Your task to perform on an android device: open a bookmark in the chrome app Image 0: 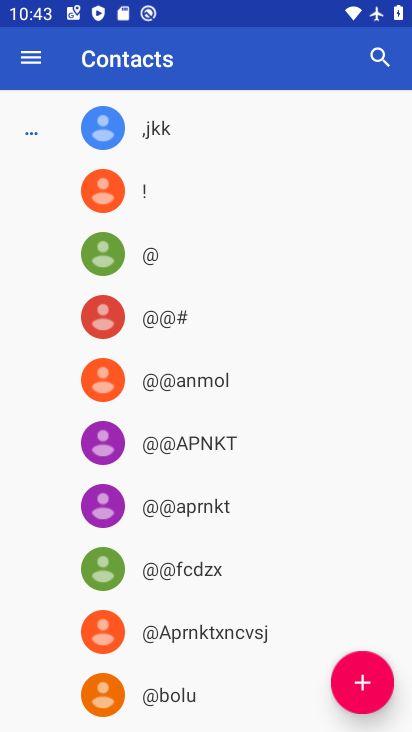
Step 0: press home button
Your task to perform on an android device: open a bookmark in the chrome app Image 1: 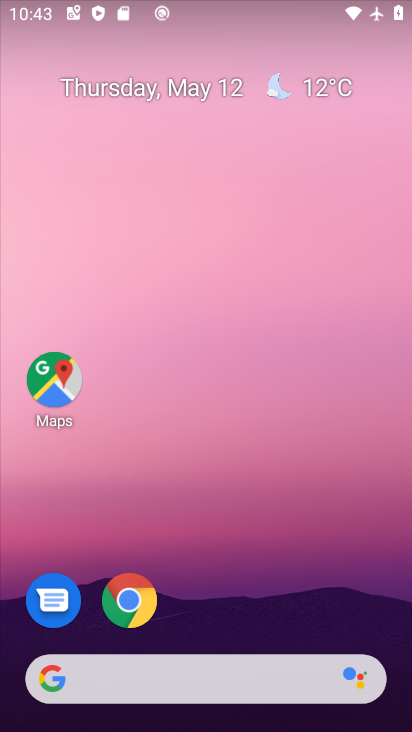
Step 1: click (125, 605)
Your task to perform on an android device: open a bookmark in the chrome app Image 2: 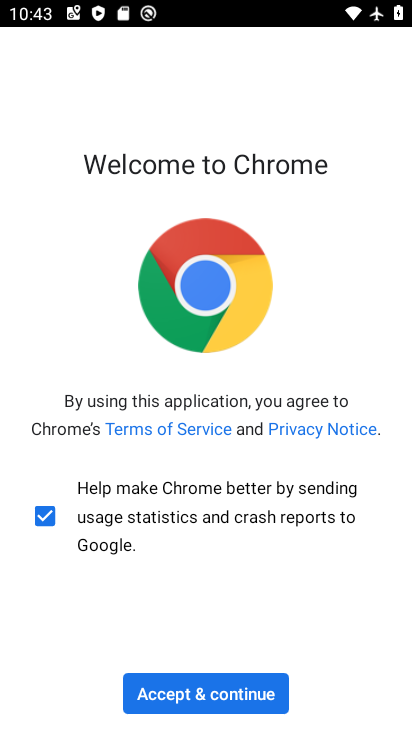
Step 2: click (248, 703)
Your task to perform on an android device: open a bookmark in the chrome app Image 3: 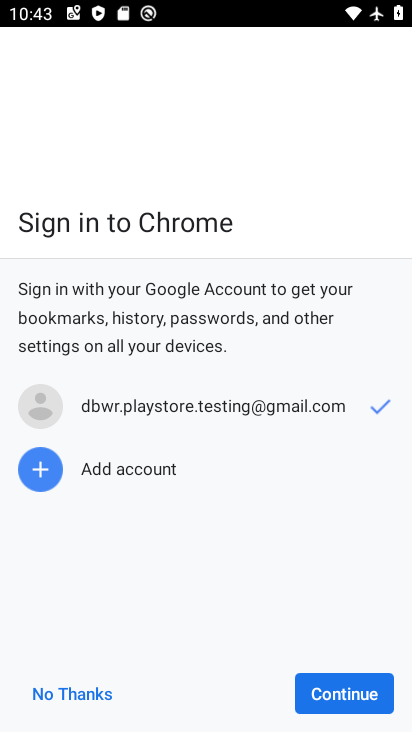
Step 3: click (331, 686)
Your task to perform on an android device: open a bookmark in the chrome app Image 4: 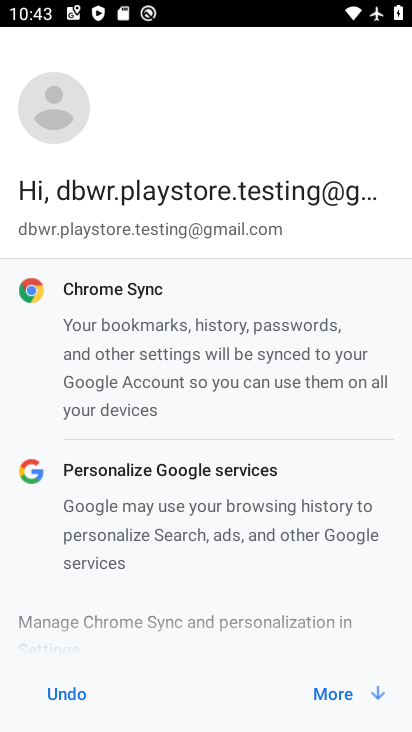
Step 4: click (331, 686)
Your task to perform on an android device: open a bookmark in the chrome app Image 5: 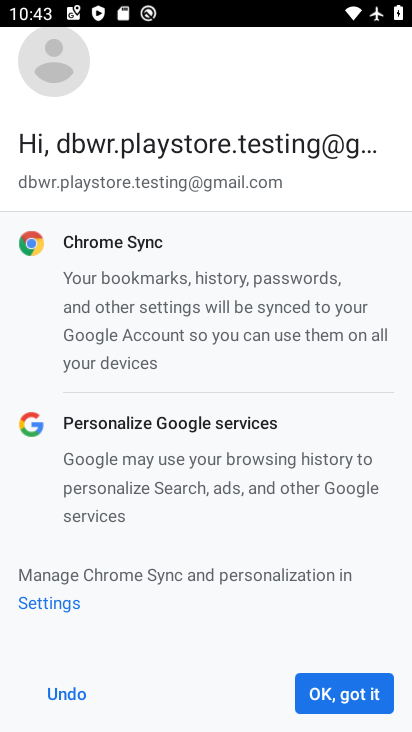
Step 5: click (331, 686)
Your task to perform on an android device: open a bookmark in the chrome app Image 6: 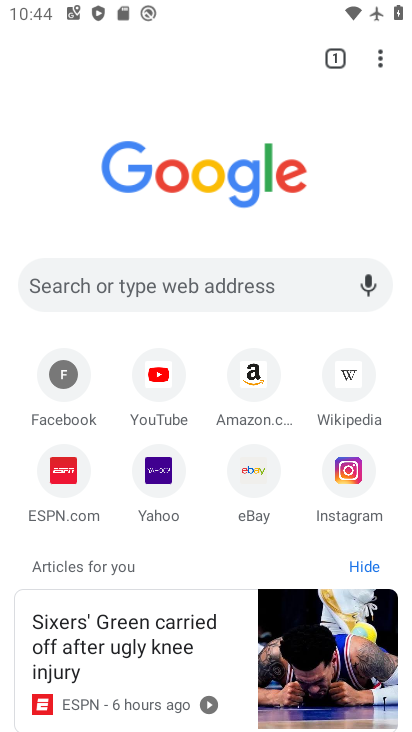
Step 6: click (386, 50)
Your task to perform on an android device: open a bookmark in the chrome app Image 7: 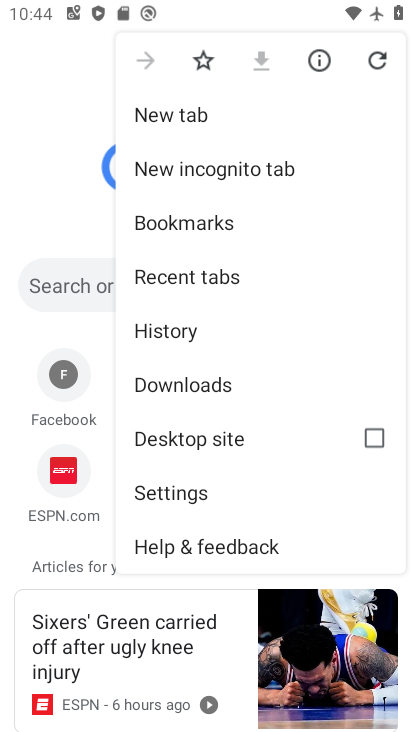
Step 7: click (199, 229)
Your task to perform on an android device: open a bookmark in the chrome app Image 8: 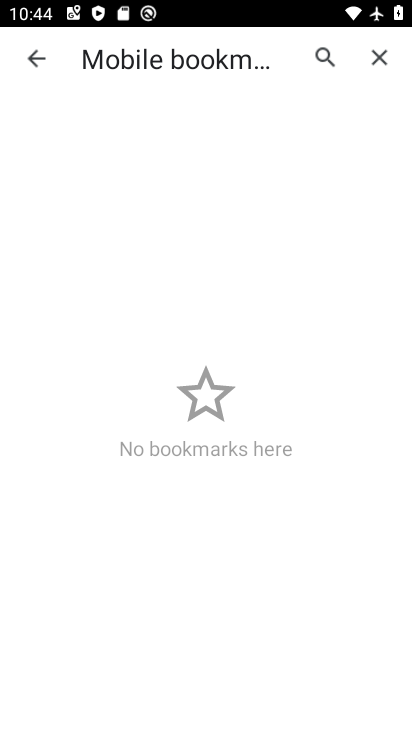
Step 8: task complete